Your task to perform on an android device: check android version Image 0: 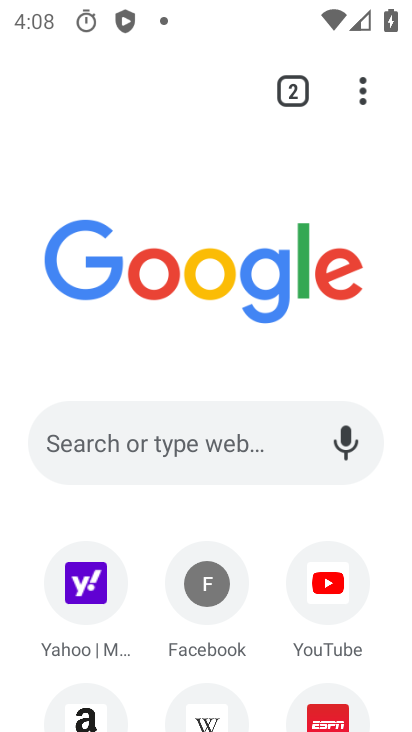
Step 0: press home button
Your task to perform on an android device: check android version Image 1: 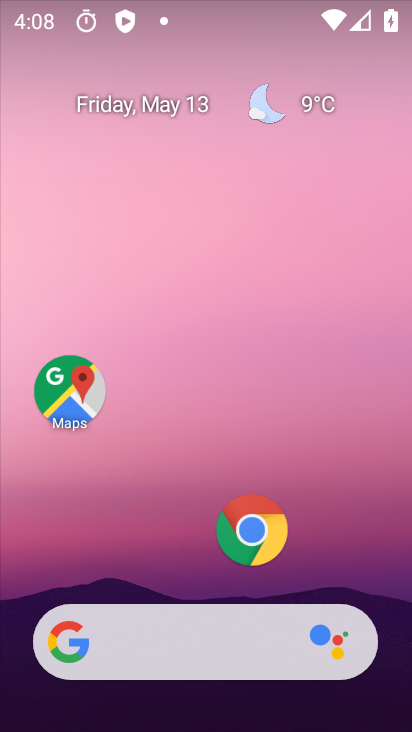
Step 1: drag from (204, 582) to (193, 0)
Your task to perform on an android device: check android version Image 2: 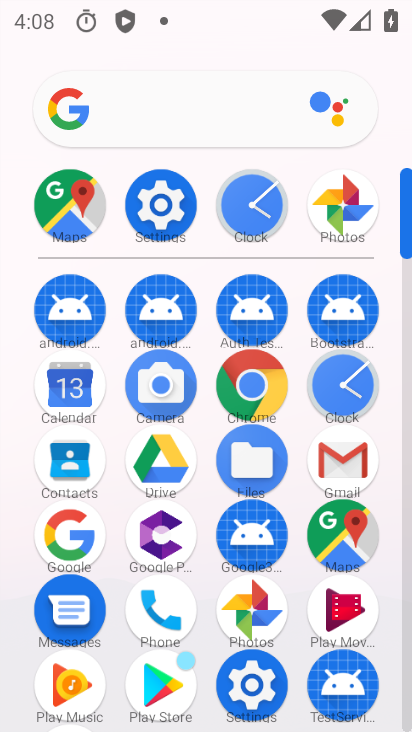
Step 2: click (252, 679)
Your task to perform on an android device: check android version Image 3: 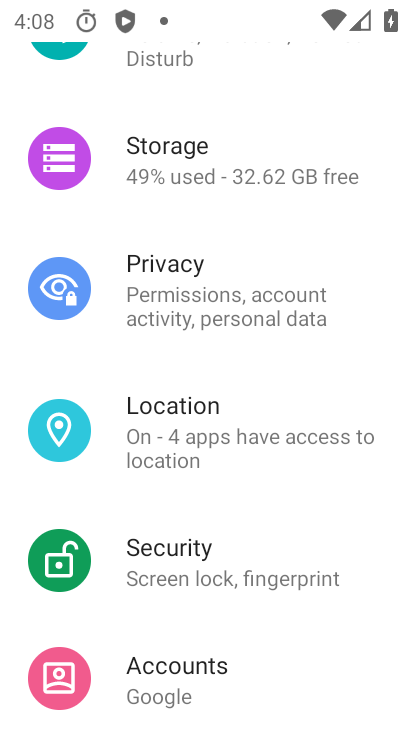
Step 3: drag from (240, 646) to (275, 59)
Your task to perform on an android device: check android version Image 4: 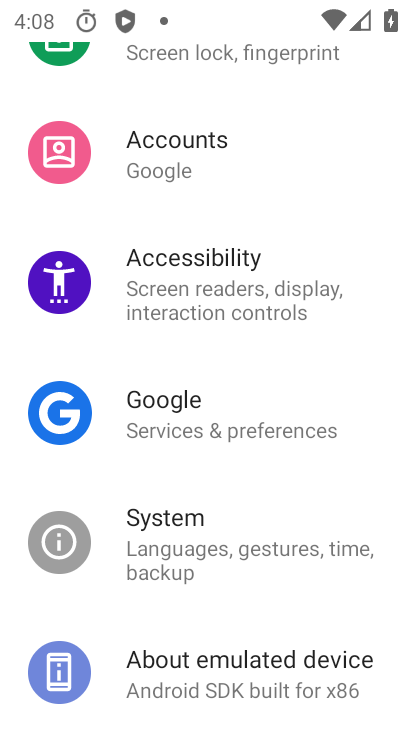
Step 4: click (213, 668)
Your task to perform on an android device: check android version Image 5: 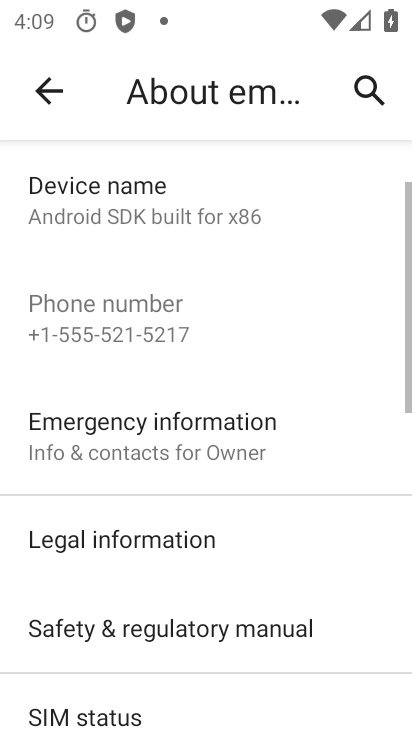
Step 5: drag from (173, 686) to (200, 215)
Your task to perform on an android device: check android version Image 6: 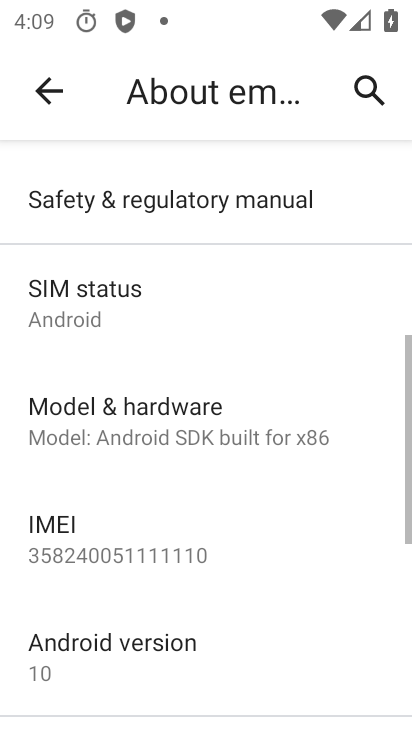
Step 6: click (133, 662)
Your task to perform on an android device: check android version Image 7: 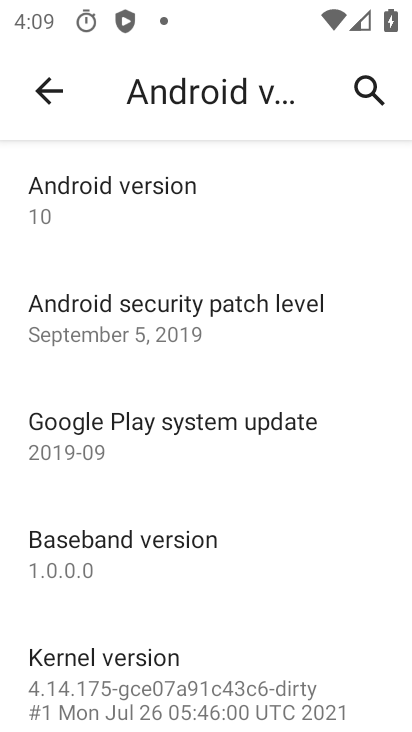
Step 7: task complete